Your task to perform on an android device: Do I have any events this weekend? Image 0: 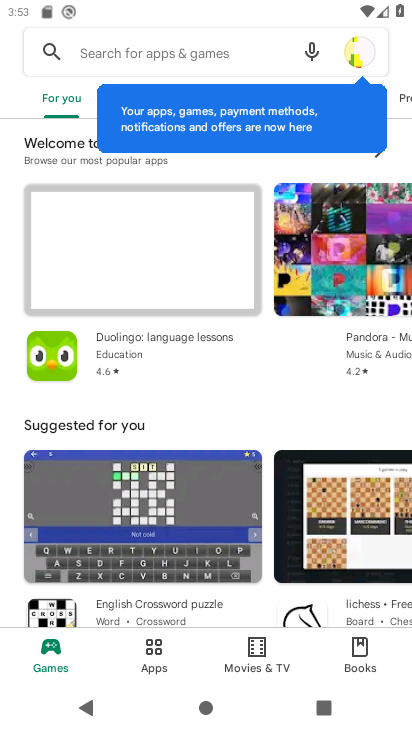
Step 0: press home button
Your task to perform on an android device: Do I have any events this weekend? Image 1: 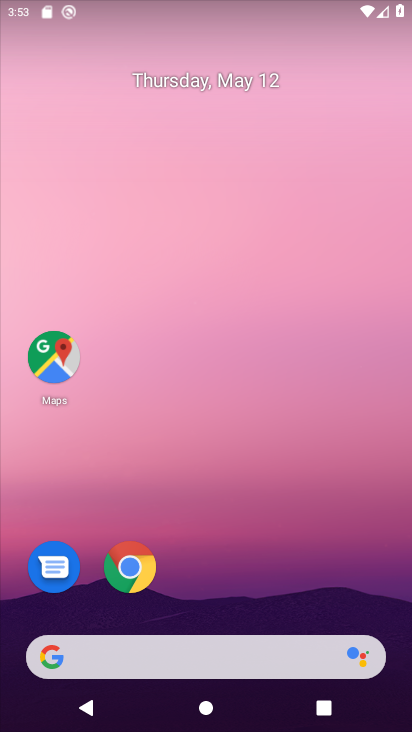
Step 1: drag from (229, 691) to (279, 216)
Your task to perform on an android device: Do I have any events this weekend? Image 2: 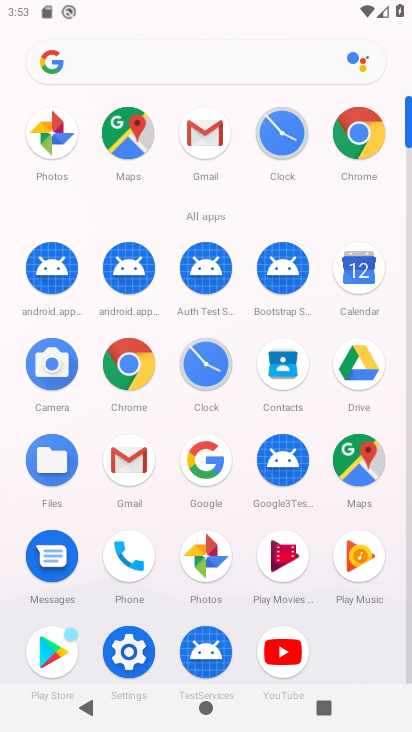
Step 2: click (358, 272)
Your task to perform on an android device: Do I have any events this weekend? Image 3: 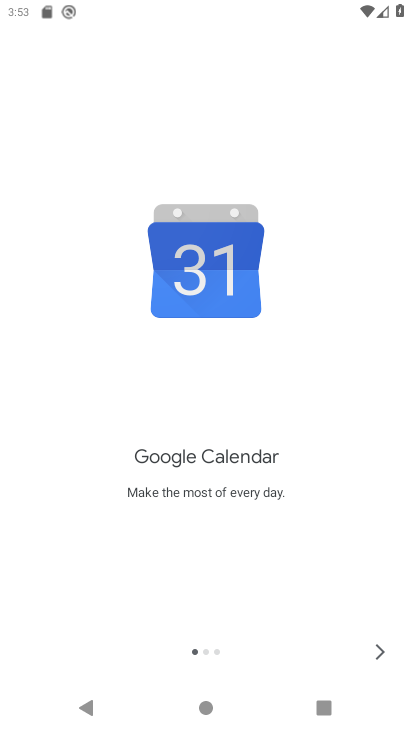
Step 3: click (386, 646)
Your task to perform on an android device: Do I have any events this weekend? Image 4: 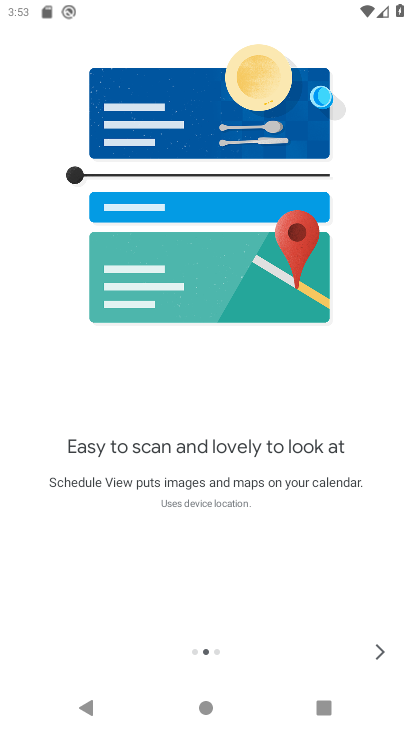
Step 4: click (378, 649)
Your task to perform on an android device: Do I have any events this weekend? Image 5: 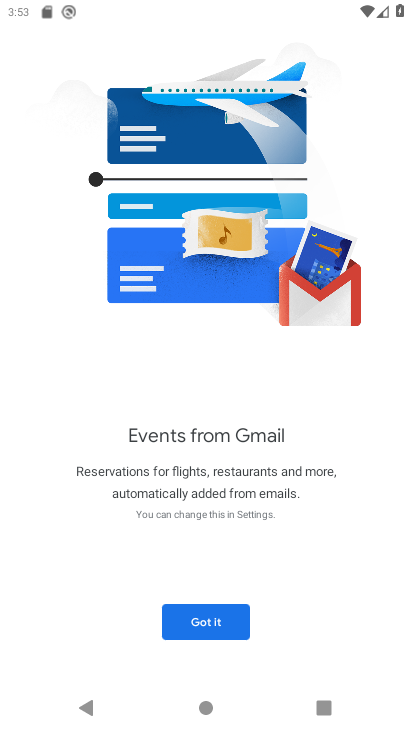
Step 5: click (227, 620)
Your task to perform on an android device: Do I have any events this weekend? Image 6: 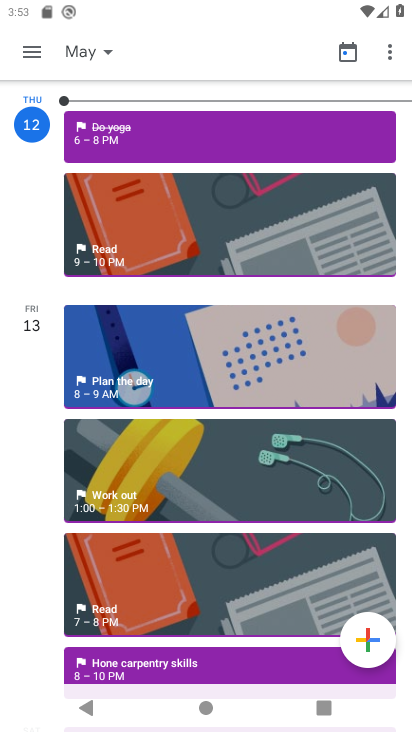
Step 6: click (25, 56)
Your task to perform on an android device: Do I have any events this weekend? Image 7: 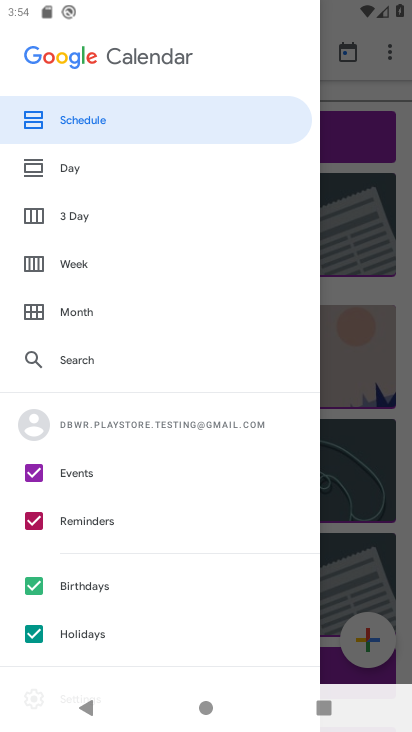
Step 7: click (101, 261)
Your task to perform on an android device: Do I have any events this weekend? Image 8: 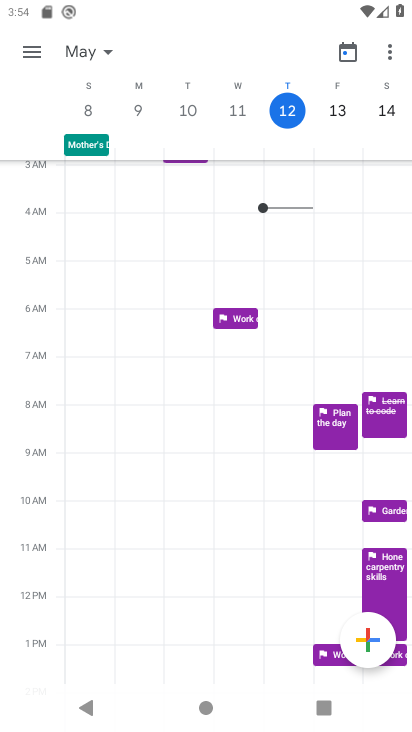
Step 8: task complete